Your task to perform on an android device: turn on sleep mode Image 0: 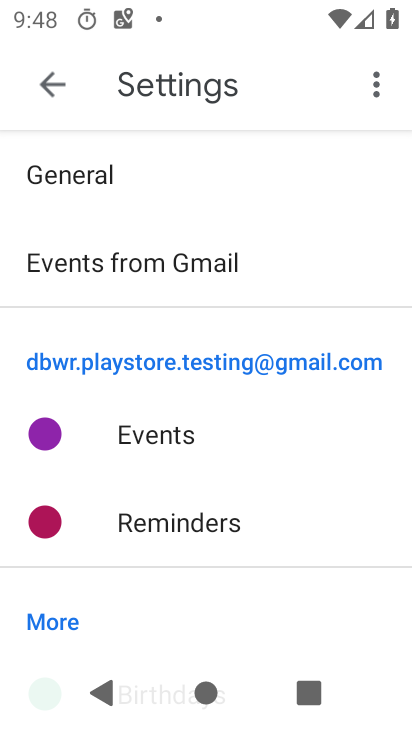
Step 0: drag from (196, 515) to (302, 192)
Your task to perform on an android device: turn on sleep mode Image 1: 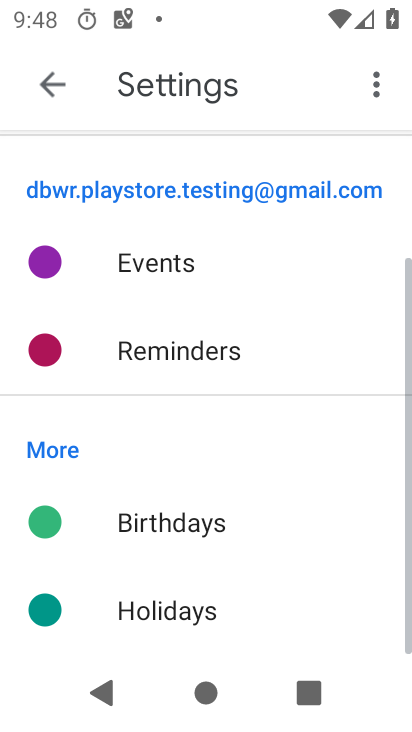
Step 1: press home button
Your task to perform on an android device: turn on sleep mode Image 2: 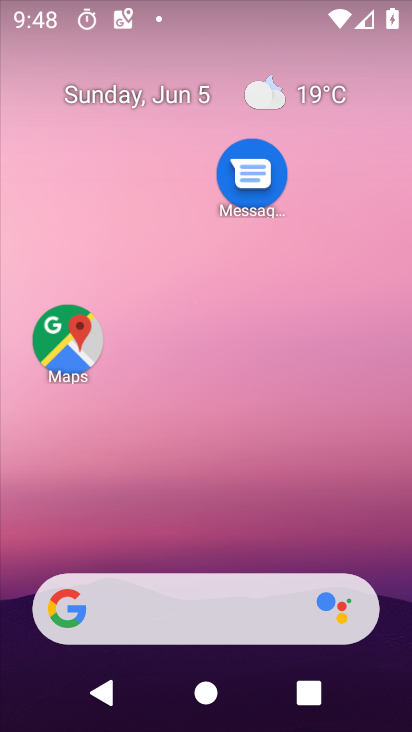
Step 2: drag from (195, 516) to (231, 226)
Your task to perform on an android device: turn on sleep mode Image 3: 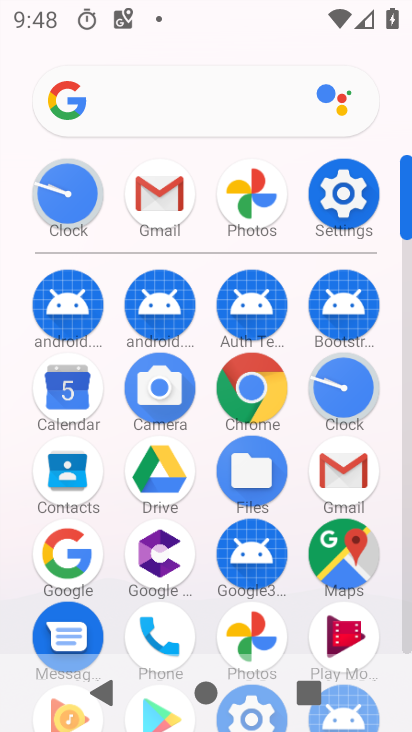
Step 3: click (351, 204)
Your task to perform on an android device: turn on sleep mode Image 4: 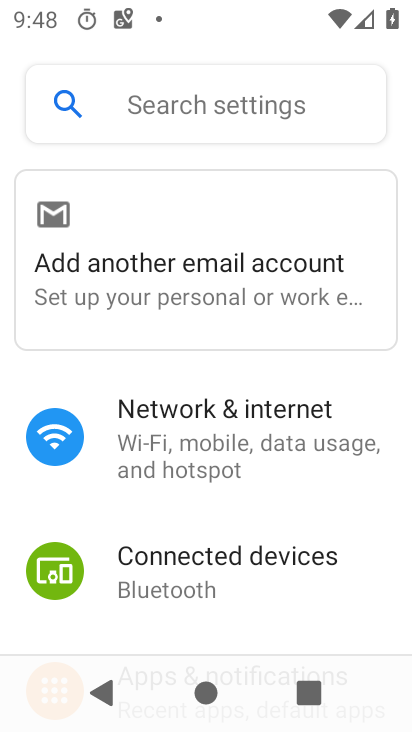
Step 4: drag from (204, 527) to (314, 63)
Your task to perform on an android device: turn on sleep mode Image 5: 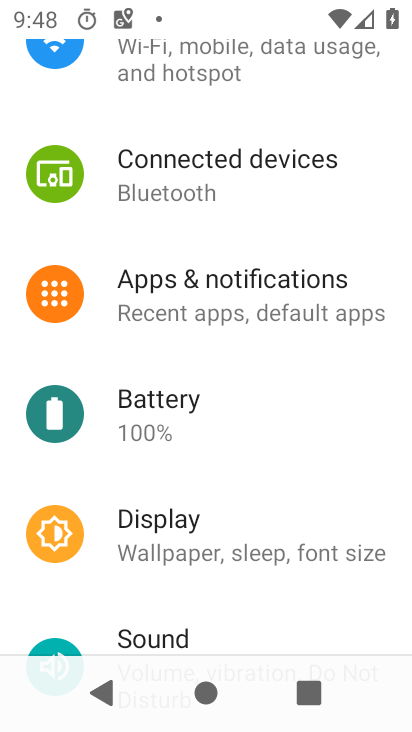
Step 5: click (179, 554)
Your task to perform on an android device: turn on sleep mode Image 6: 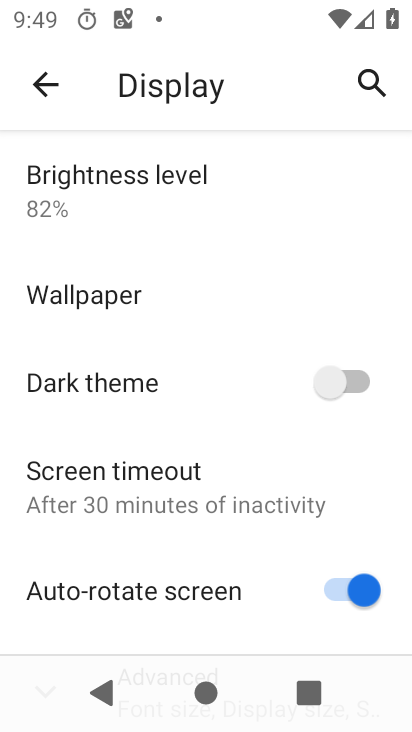
Step 6: drag from (297, 451) to (291, 124)
Your task to perform on an android device: turn on sleep mode Image 7: 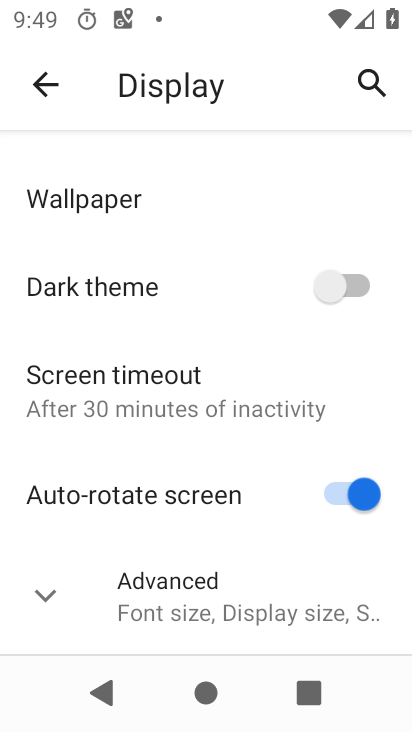
Step 7: click (206, 424)
Your task to perform on an android device: turn on sleep mode Image 8: 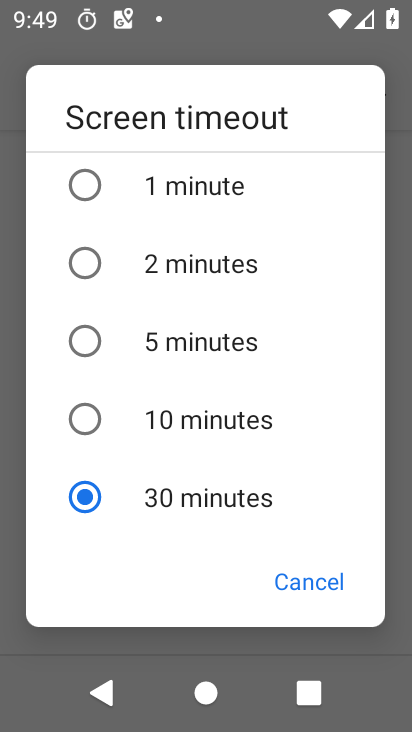
Step 8: task complete